Your task to perform on an android device: Go to settings Image 0: 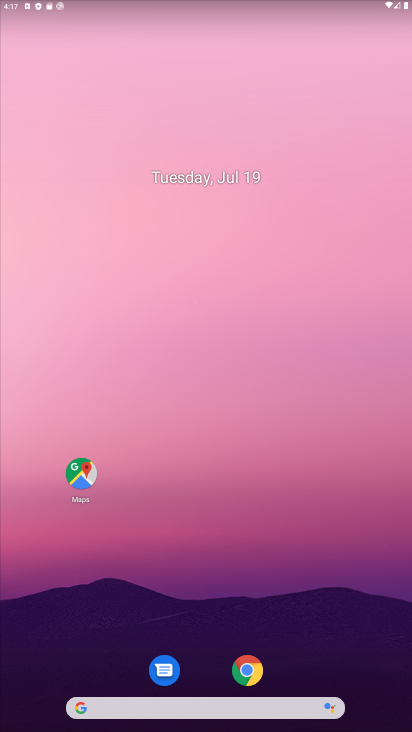
Step 0: drag from (193, 716) to (294, 63)
Your task to perform on an android device: Go to settings Image 1: 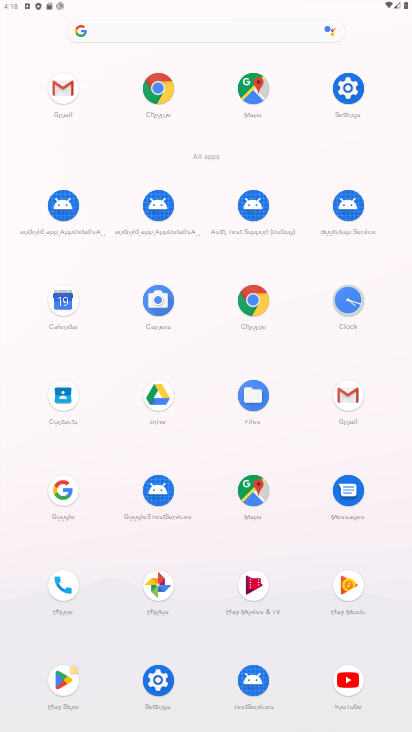
Step 1: click (345, 84)
Your task to perform on an android device: Go to settings Image 2: 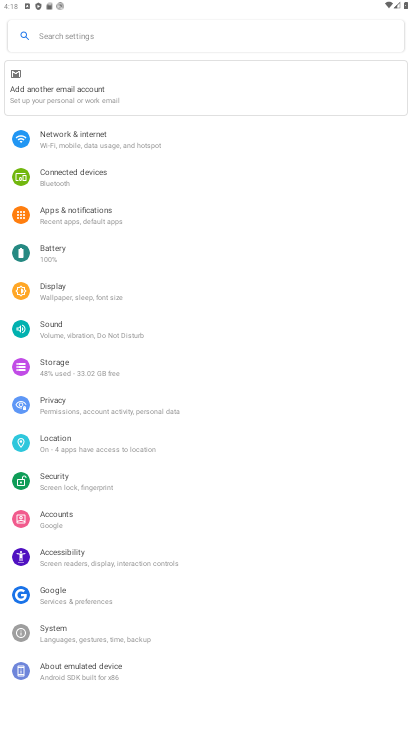
Step 2: task complete